Your task to perform on an android device: Turn off the flashlight Image 0: 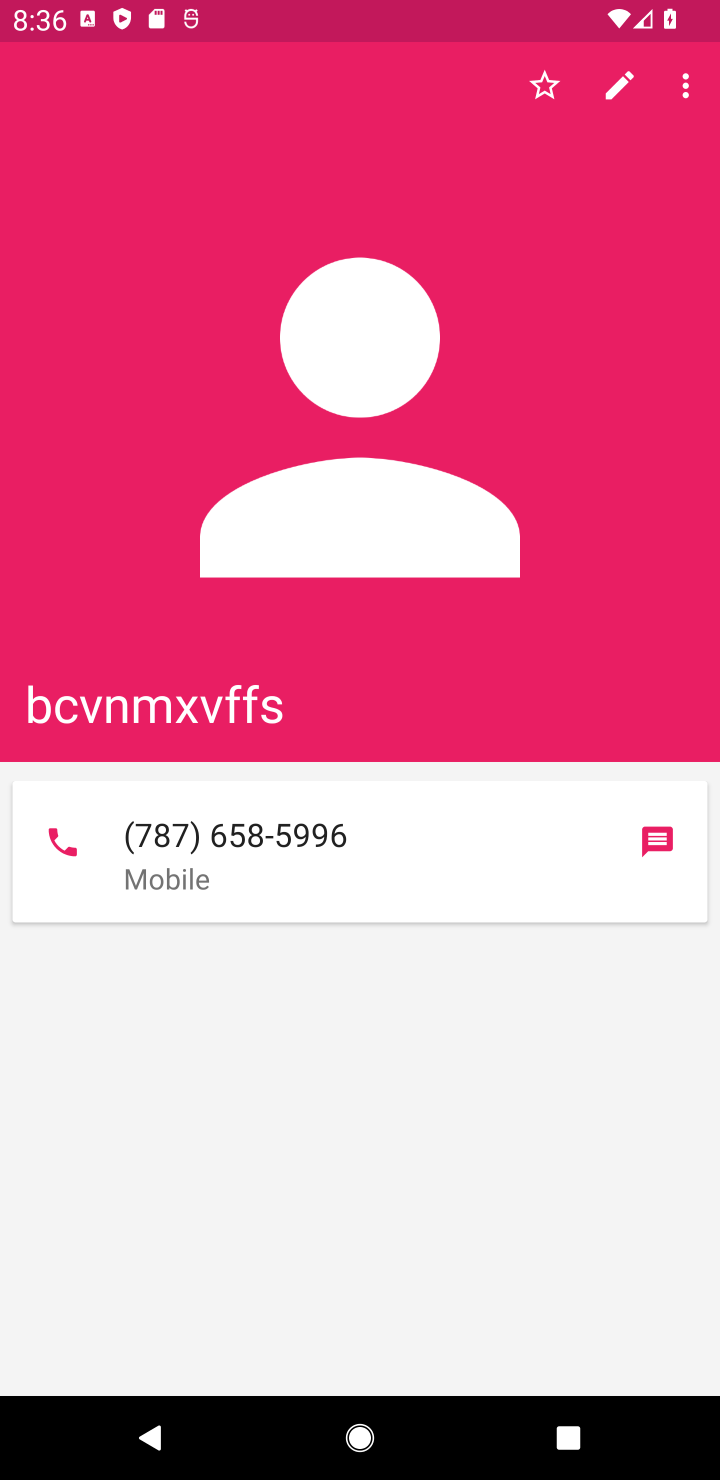
Step 0: press home button
Your task to perform on an android device: Turn off the flashlight Image 1: 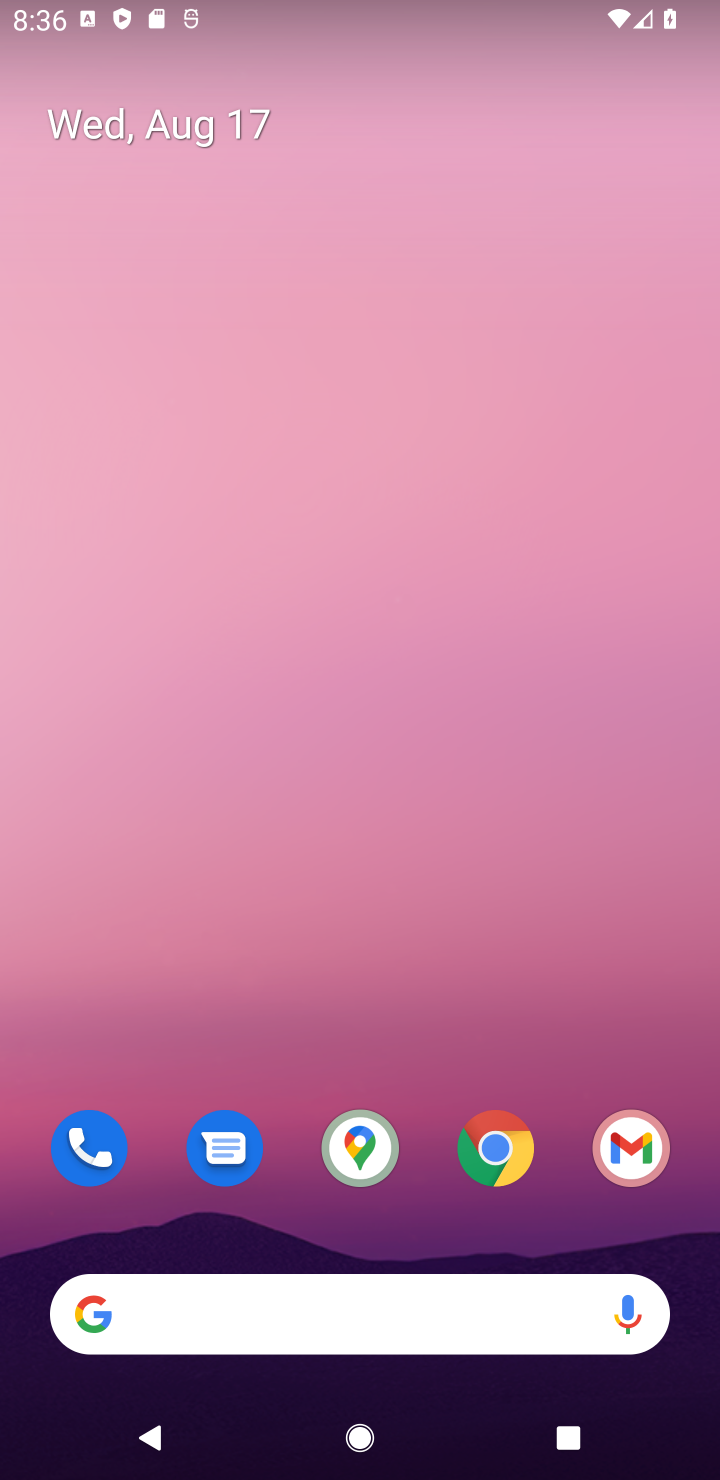
Step 1: drag from (396, 19) to (265, 1389)
Your task to perform on an android device: Turn off the flashlight Image 2: 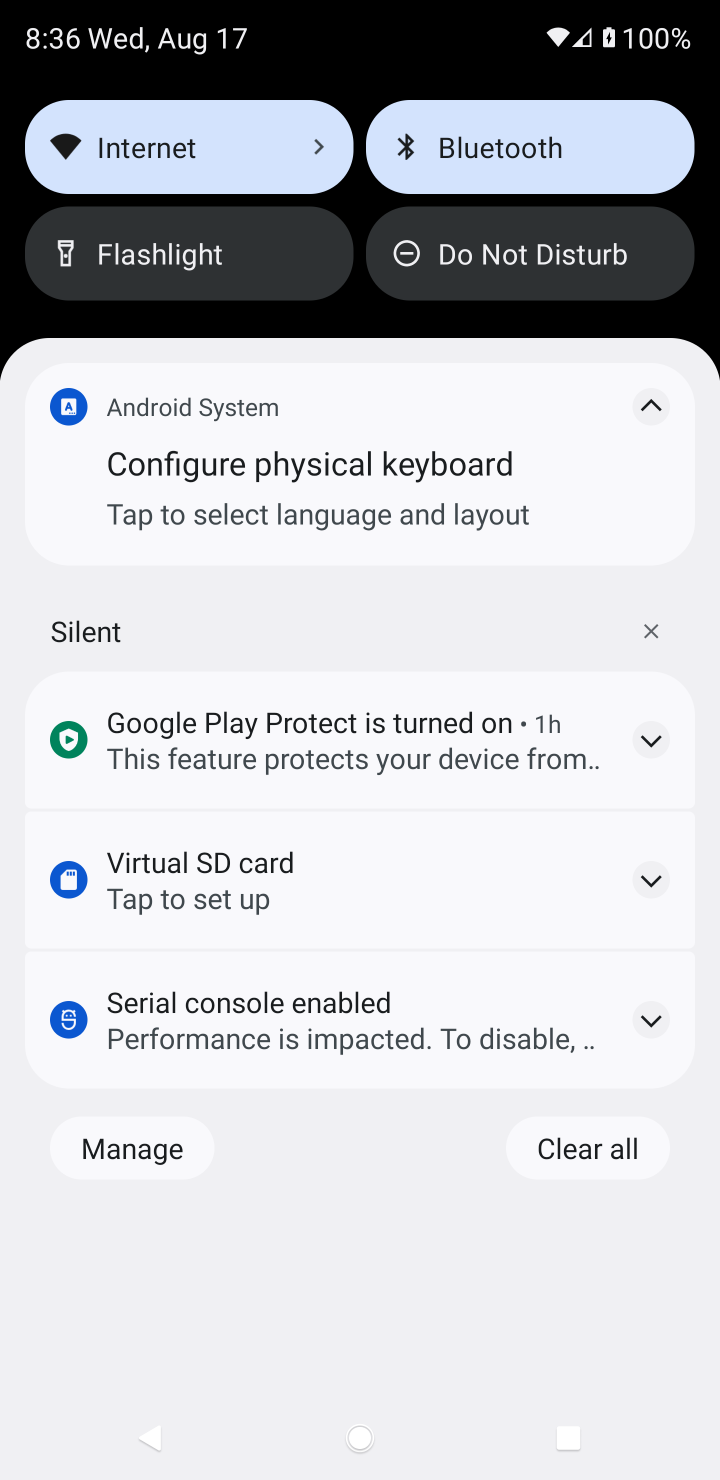
Step 2: click (160, 253)
Your task to perform on an android device: Turn off the flashlight Image 3: 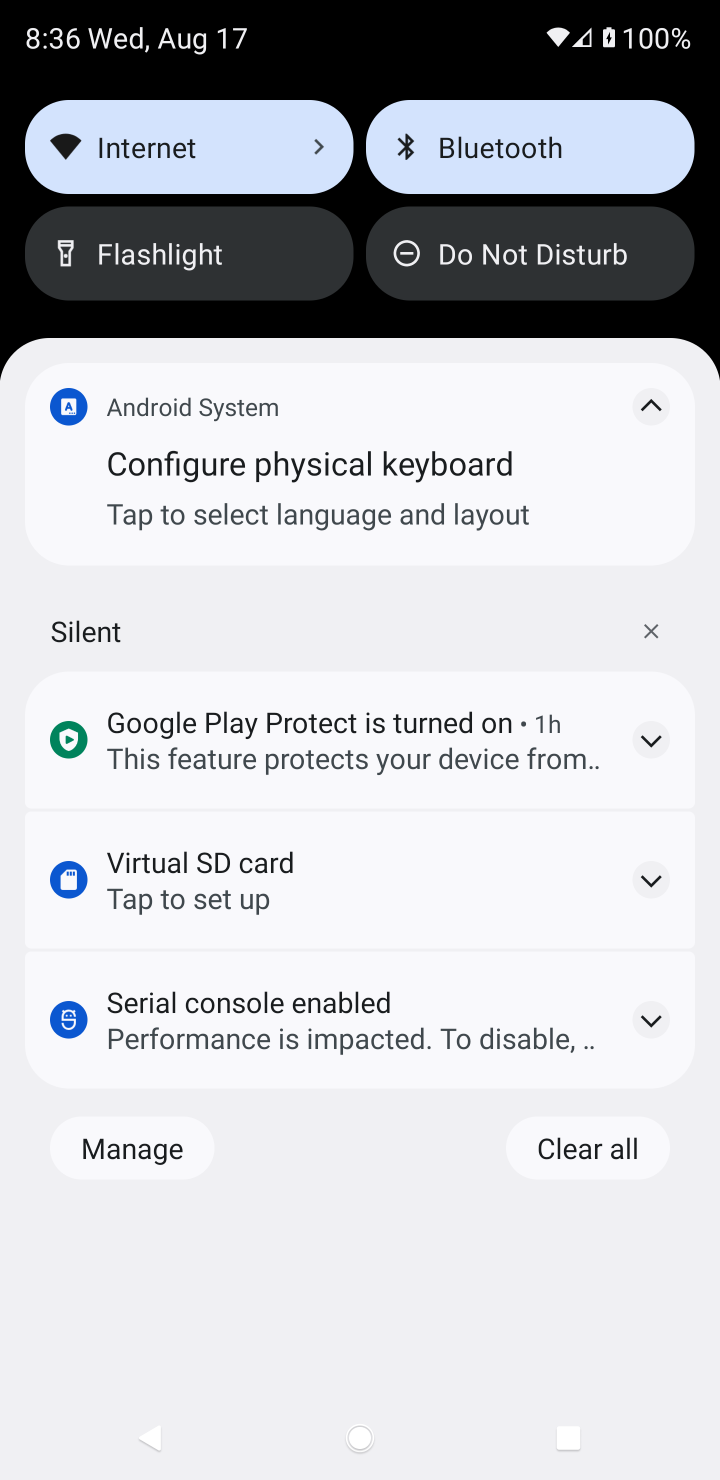
Step 3: task complete